Your task to perform on an android device: Go to internet settings Image 0: 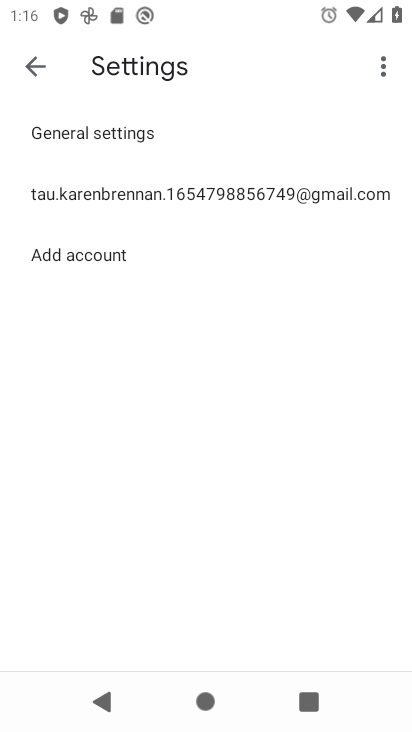
Step 0: press home button
Your task to perform on an android device: Go to internet settings Image 1: 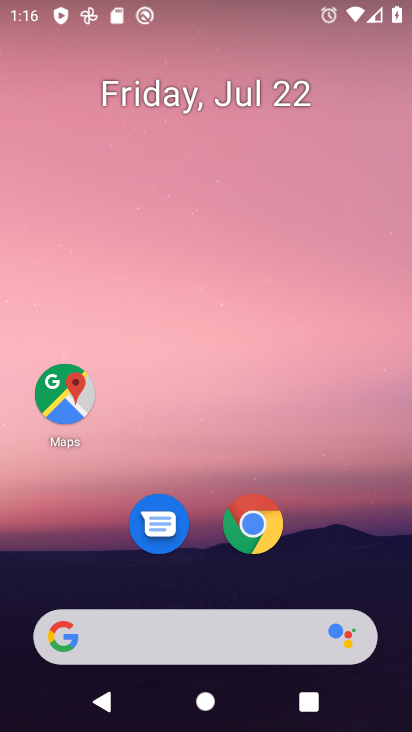
Step 1: drag from (191, 647) to (340, 154)
Your task to perform on an android device: Go to internet settings Image 2: 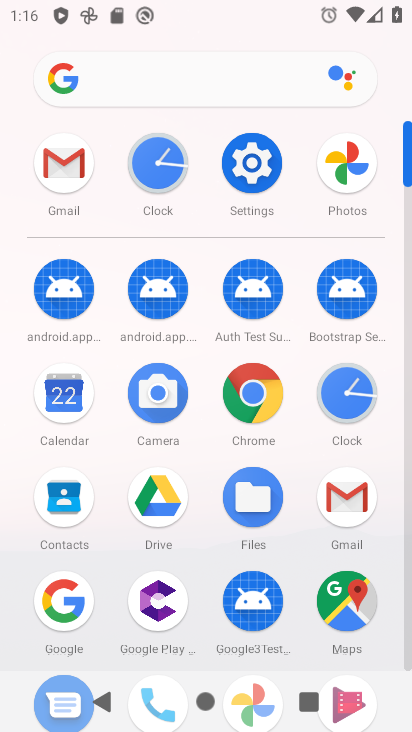
Step 2: click (245, 161)
Your task to perform on an android device: Go to internet settings Image 3: 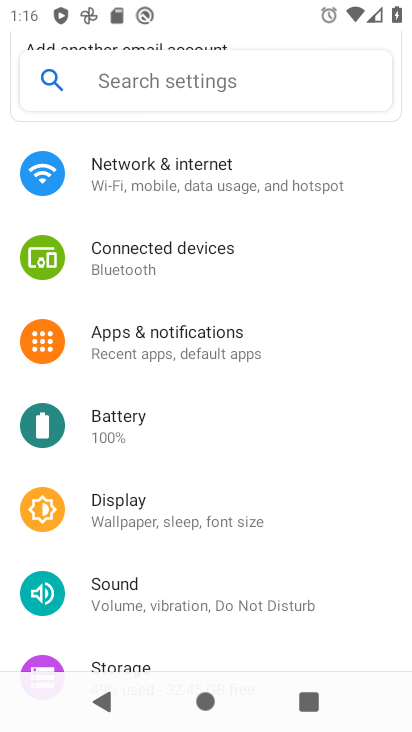
Step 3: click (183, 171)
Your task to perform on an android device: Go to internet settings Image 4: 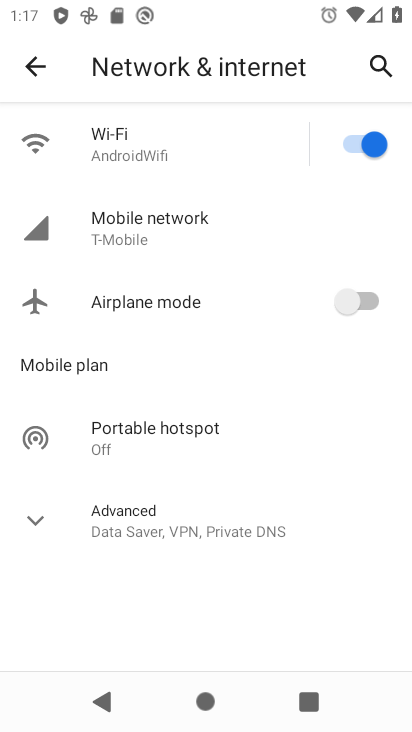
Step 4: task complete